Your task to perform on an android device: toggle show notifications on the lock screen Image 0: 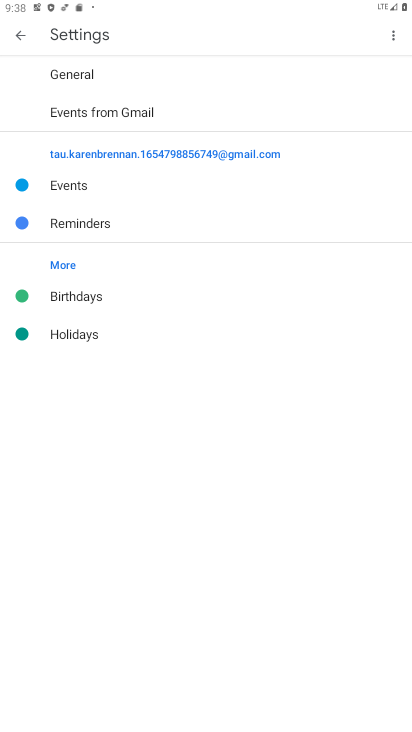
Step 0: press home button
Your task to perform on an android device: toggle show notifications on the lock screen Image 1: 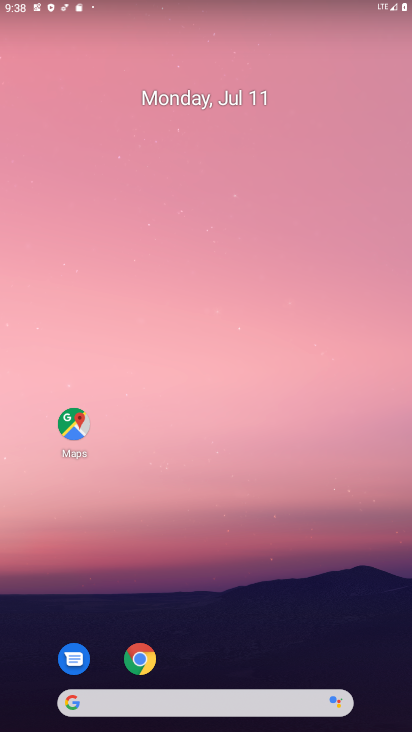
Step 1: drag from (217, 534) to (205, 130)
Your task to perform on an android device: toggle show notifications on the lock screen Image 2: 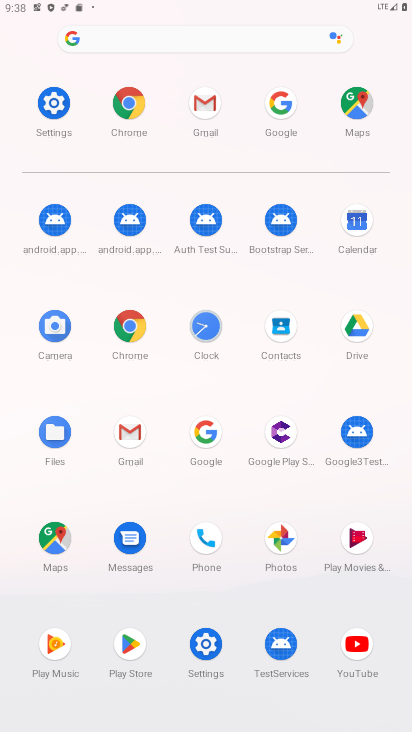
Step 2: click (58, 103)
Your task to perform on an android device: toggle show notifications on the lock screen Image 3: 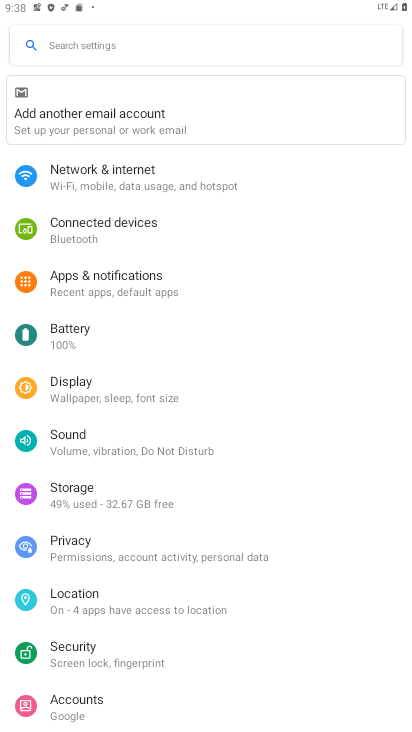
Step 3: click (89, 281)
Your task to perform on an android device: toggle show notifications on the lock screen Image 4: 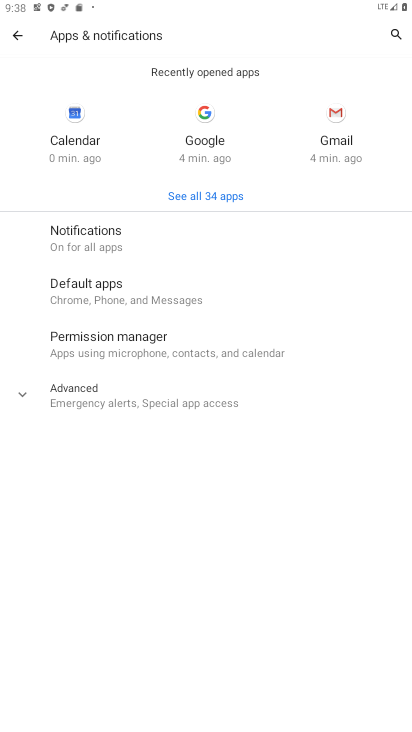
Step 4: click (78, 232)
Your task to perform on an android device: toggle show notifications on the lock screen Image 5: 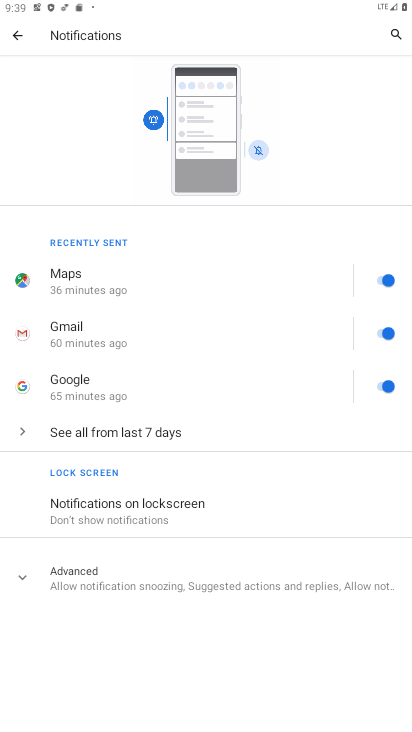
Step 5: click (102, 509)
Your task to perform on an android device: toggle show notifications on the lock screen Image 6: 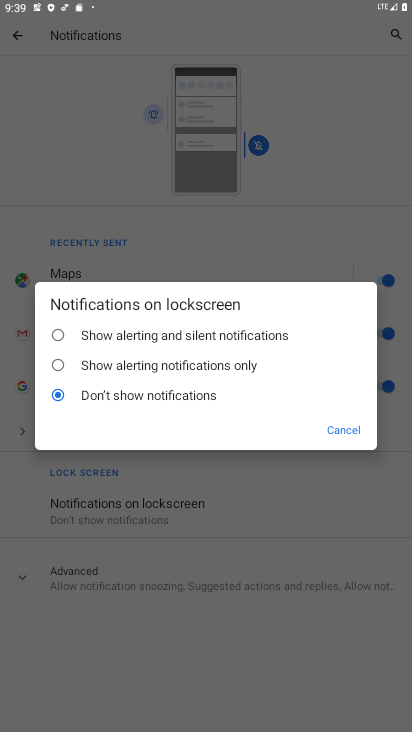
Step 6: click (56, 329)
Your task to perform on an android device: toggle show notifications on the lock screen Image 7: 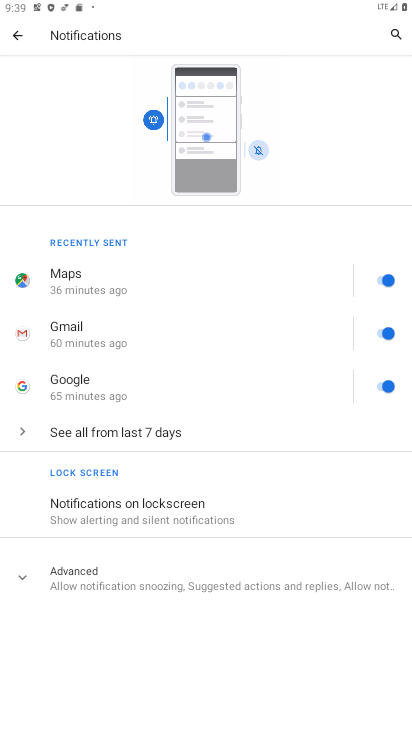
Step 7: task complete